Your task to perform on an android device: change the clock display to analog Image 0: 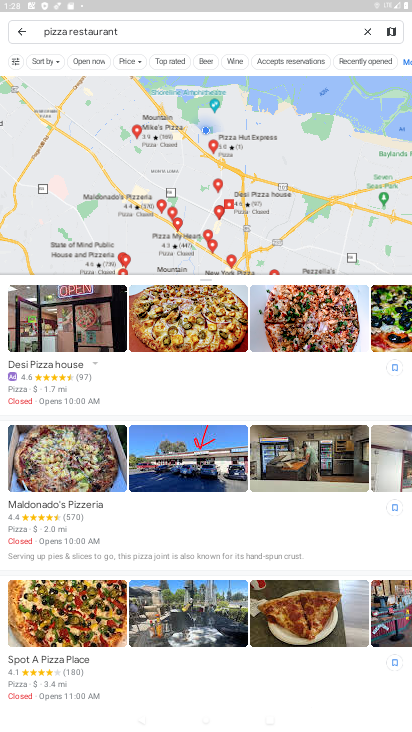
Step 0: press home button
Your task to perform on an android device: change the clock display to analog Image 1: 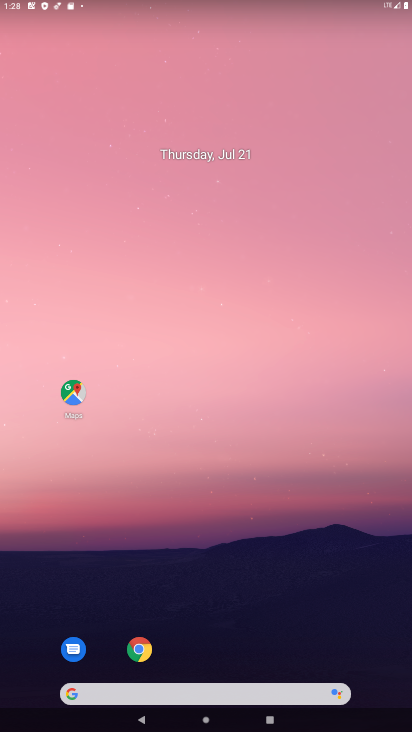
Step 1: drag from (232, 725) to (222, 231)
Your task to perform on an android device: change the clock display to analog Image 2: 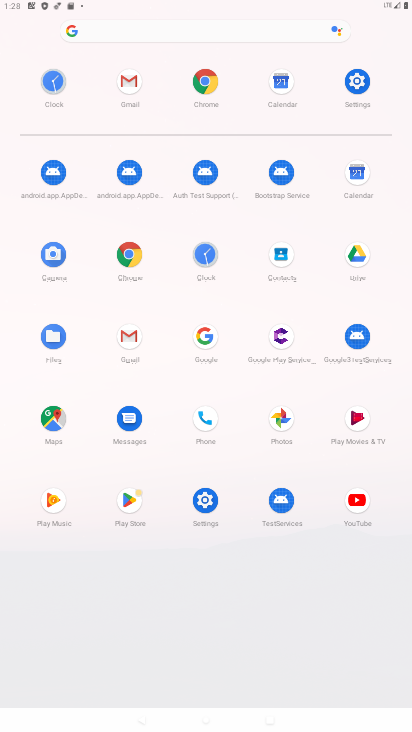
Step 2: click (205, 254)
Your task to perform on an android device: change the clock display to analog Image 3: 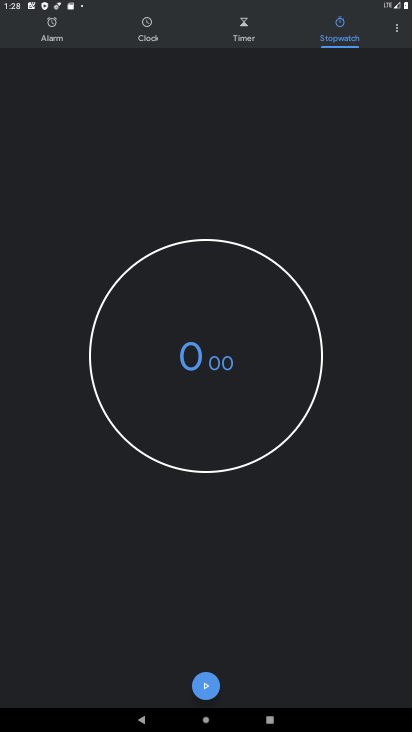
Step 3: click (398, 33)
Your task to perform on an android device: change the clock display to analog Image 4: 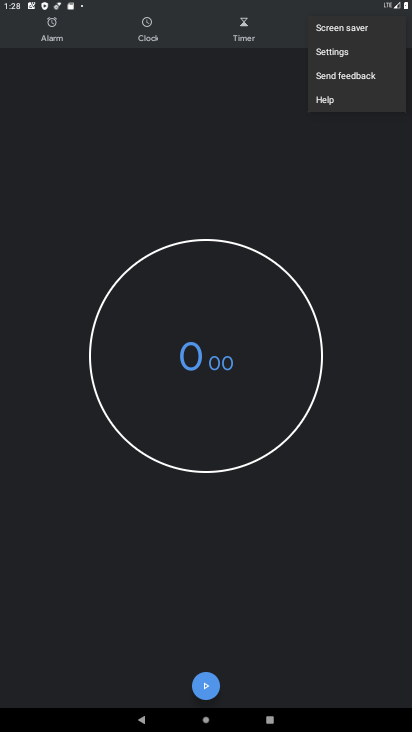
Step 4: click (333, 50)
Your task to perform on an android device: change the clock display to analog Image 5: 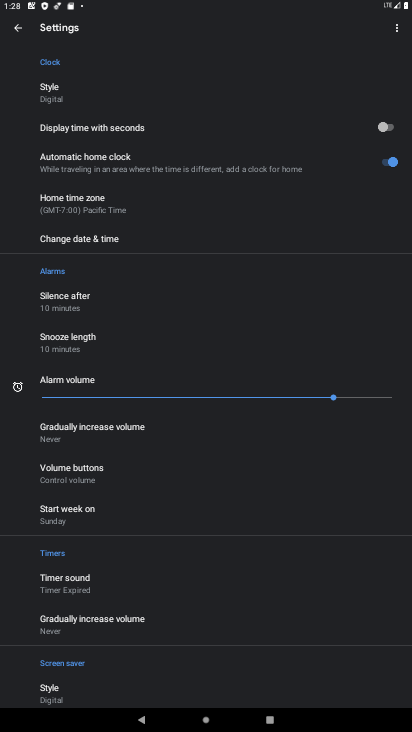
Step 5: click (58, 98)
Your task to perform on an android device: change the clock display to analog Image 6: 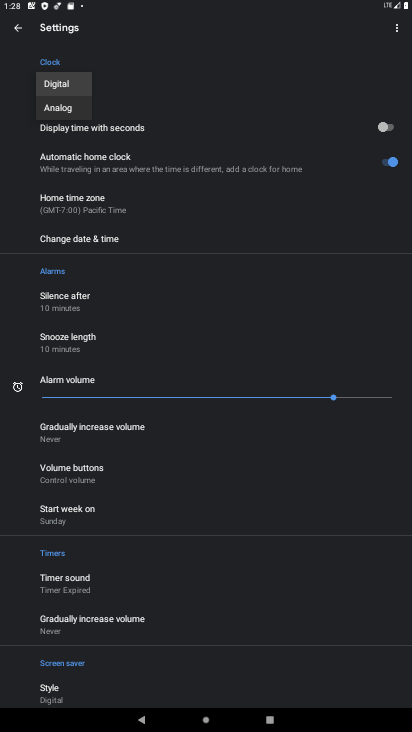
Step 6: click (58, 106)
Your task to perform on an android device: change the clock display to analog Image 7: 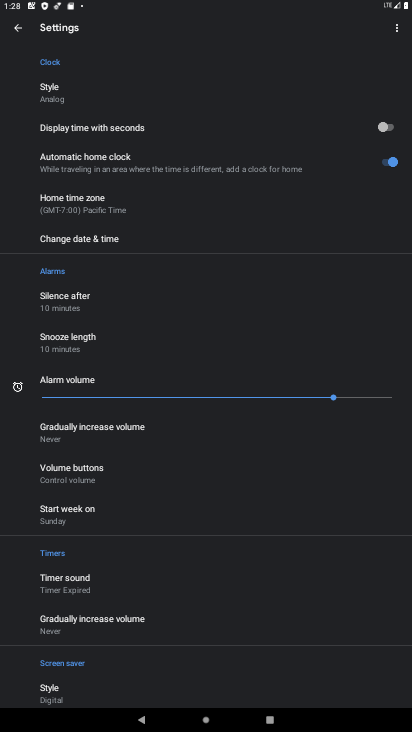
Step 7: task complete